Your task to perform on an android device: toggle pop-ups in chrome Image 0: 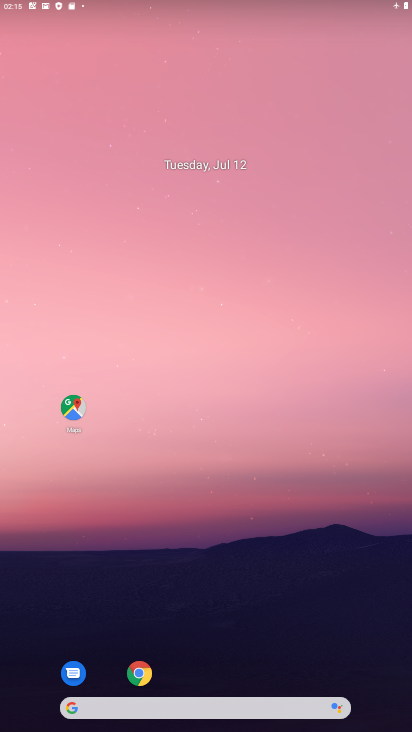
Step 0: press home button
Your task to perform on an android device: toggle pop-ups in chrome Image 1: 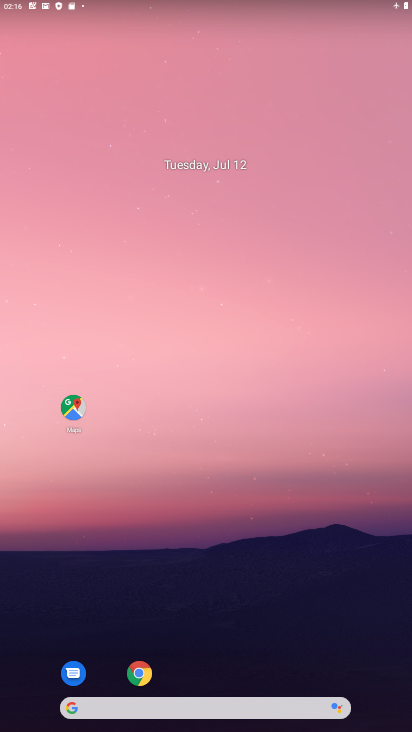
Step 1: press home button
Your task to perform on an android device: toggle pop-ups in chrome Image 2: 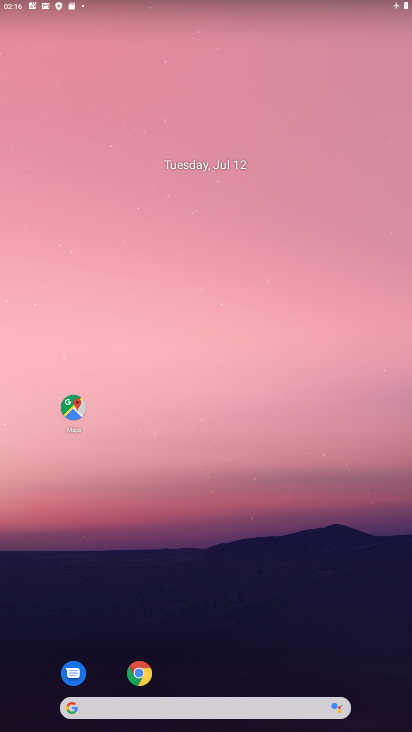
Step 2: drag from (232, 643) to (203, 40)
Your task to perform on an android device: toggle pop-ups in chrome Image 3: 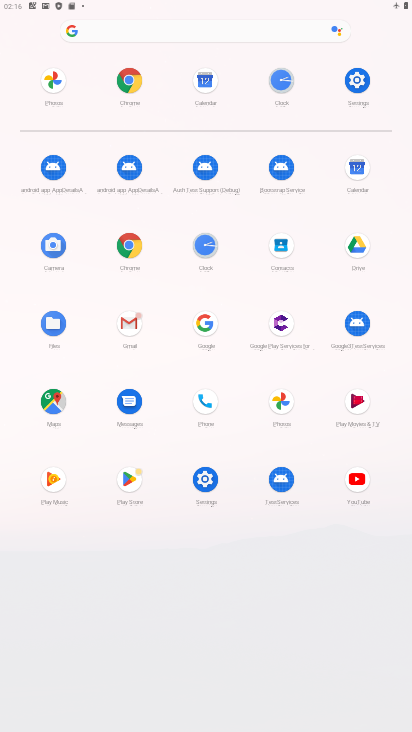
Step 3: click (124, 77)
Your task to perform on an android device: toggle pop-ups in chrome Image 4: 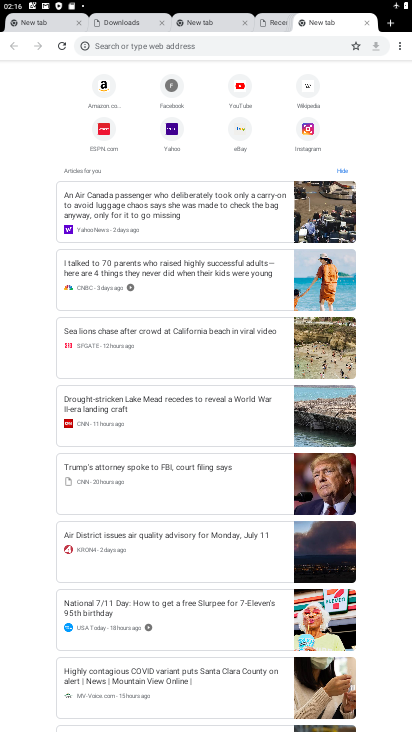
Step 4: click (400, 44)
Your task to perform on an android device: toggle pop-ups in chrome Image 5: 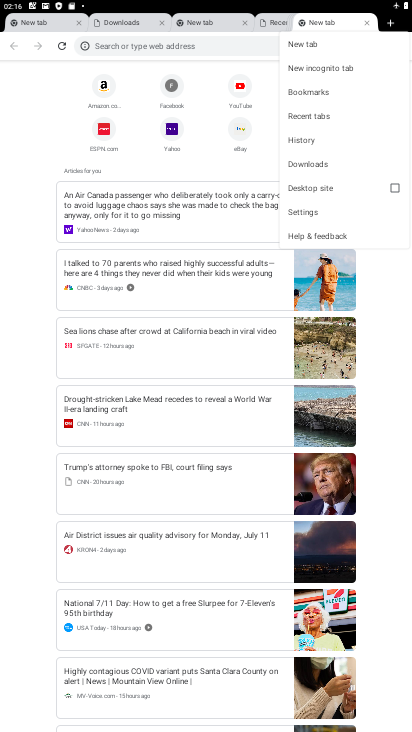
Step 5: click (311, 210)
Your task to perform on an android device: toggle pop-ups in chrome Image 6: 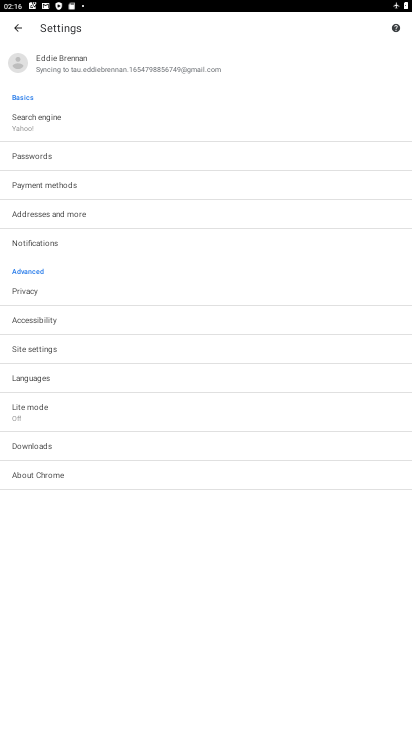
Step 6: click (32, 341)
Your task to perform on an android device: toggle pop-ups in chrome Image 7: 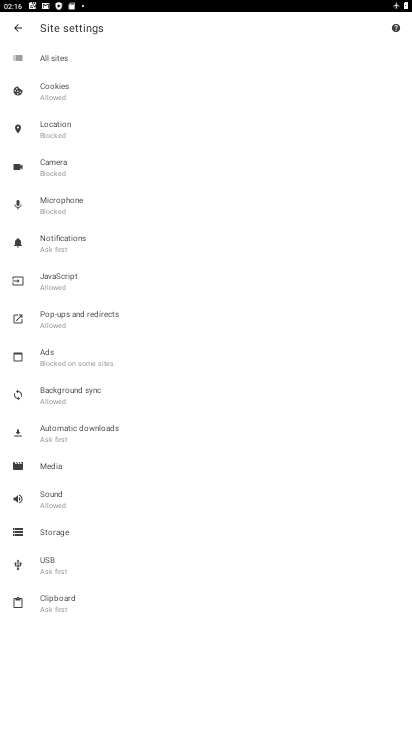
Step 7: click (66, 315)
Your task to perform on an android device: toggle pop-ups in chrome Image 8: 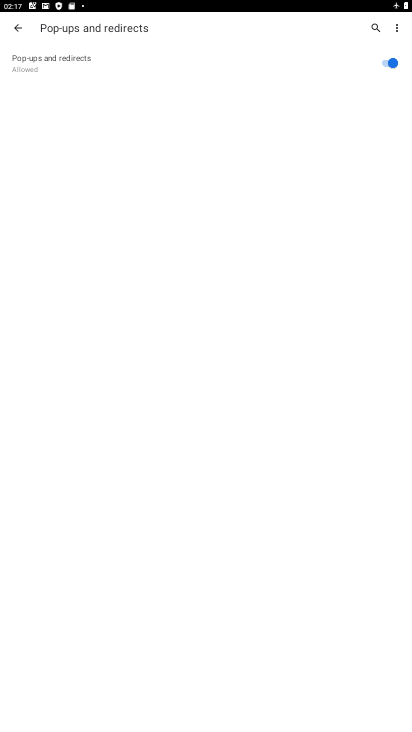
Step 8: click (394, 62)
Your task to perform on an android device: toggle pop-ups in chrome Image 9: 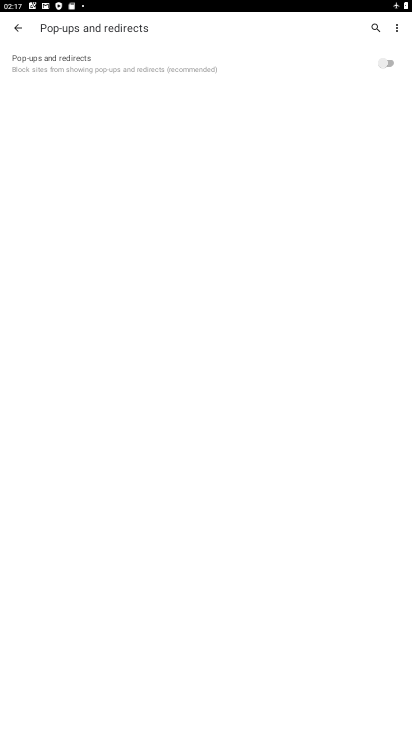
Step 9: task complete